Your task to perform on an android device: turn off smart reply in the gmail app Image 0: 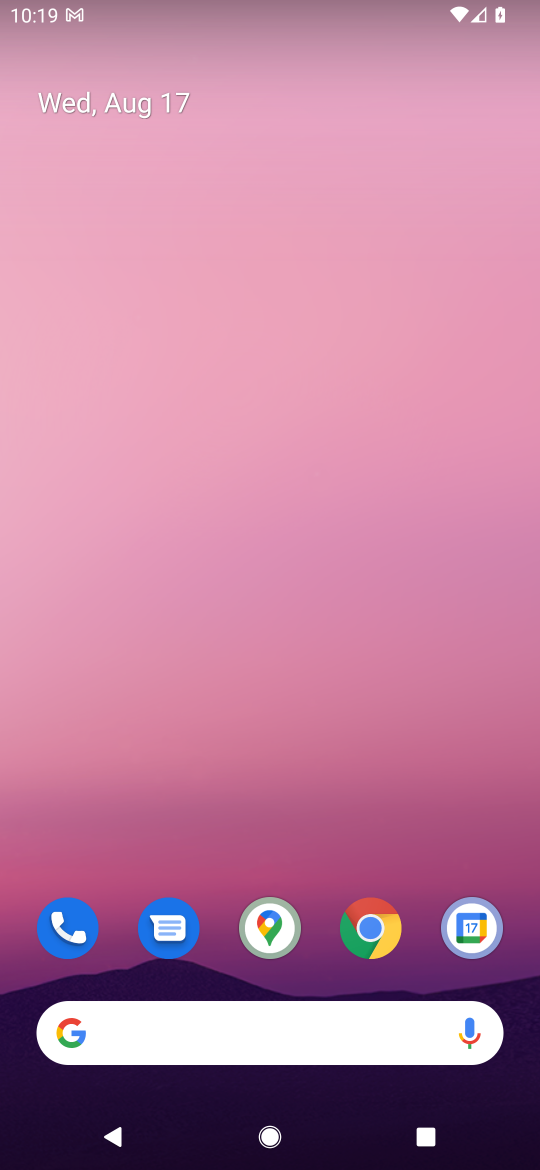
Step 0: drag from (331, 850) to (441, 714)
Your task to perform on an android device: turn off smart reply in the gmail app Image 1: 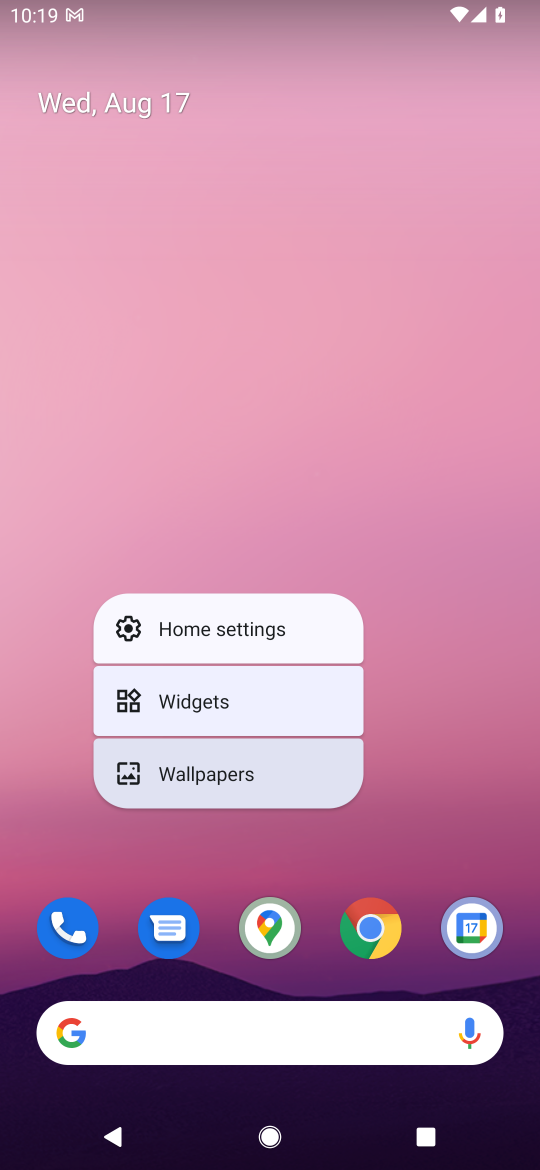
Step 1: drag from (435, 830) to (366, 84)
Your task to perform on an android device: turn off smart reply in the gmail app Image 2: 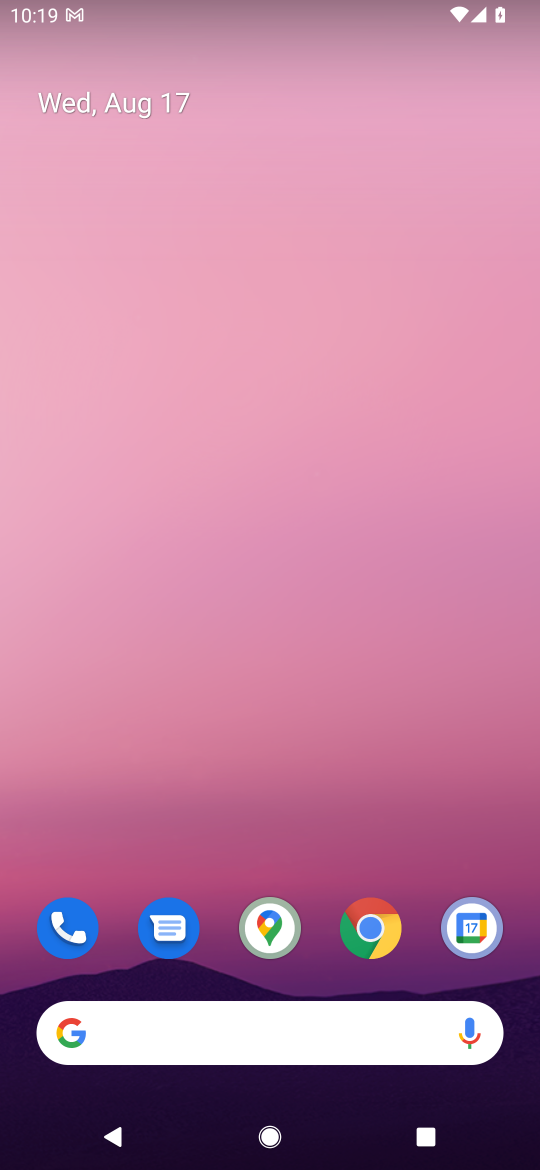
Step 2: drag from (416, 867) to (312, 263)
Your task to perform on an android device: turn off smart reply in the gmail app Image 3: 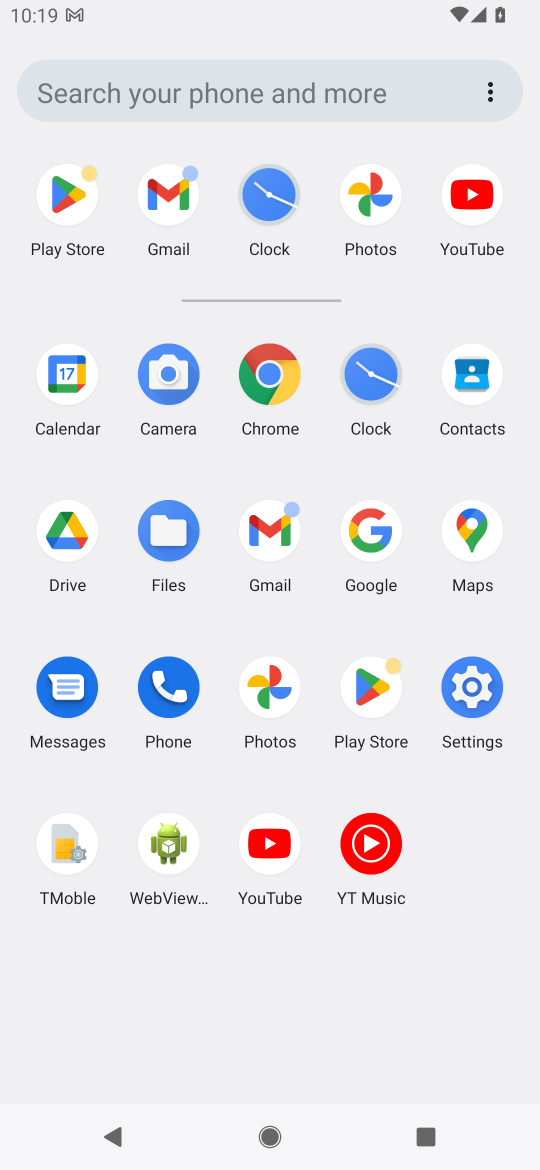
Step 3: click (272, 516)
Your task to perform on an android device: turn off smart reply in the gmail app Image 4: 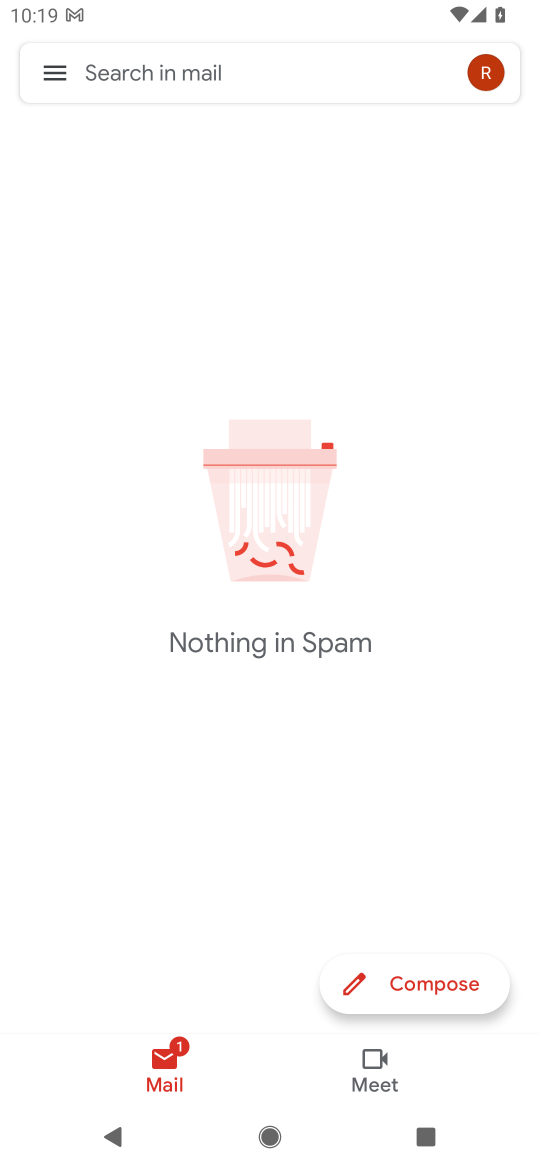
Step 4: click (49, 89)
Your task to perform on an android device: turn off smart reply in the gmail app Image 5: 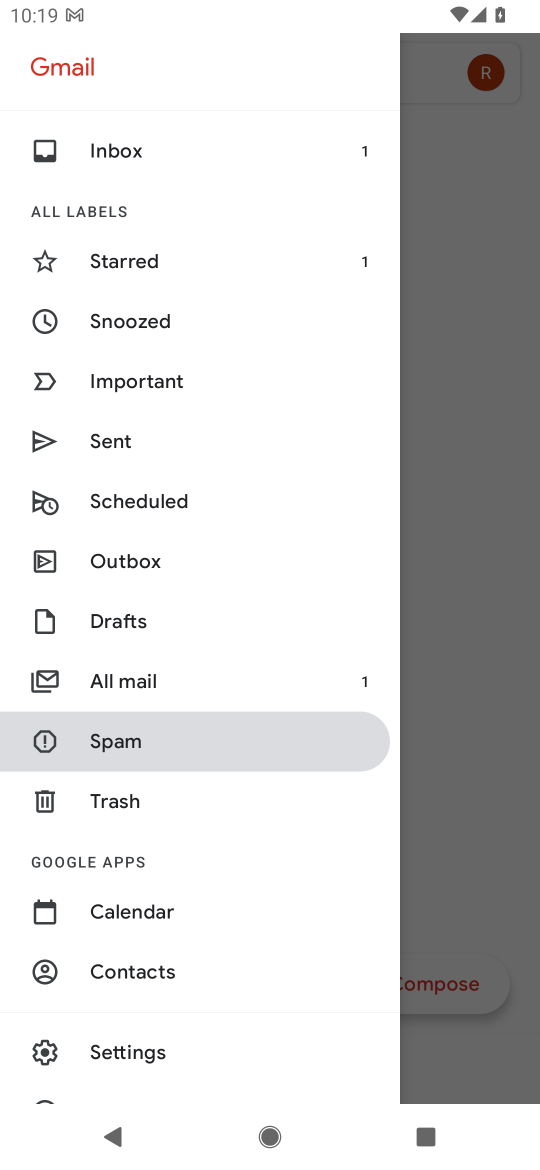
Step 5: click (185, 1047)
Your task to perform on an android device: turn off smart reply in the gmail app Image 6: 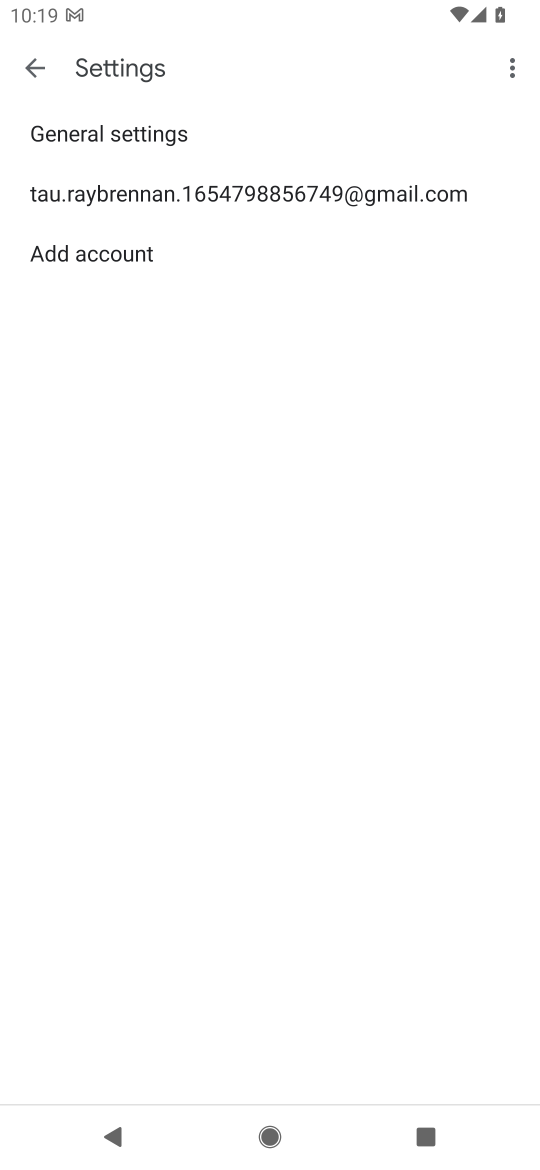
Step 6: click (174, 192)
Your task to perform on an android device: turn off smart reply in the gmail app Image 7: 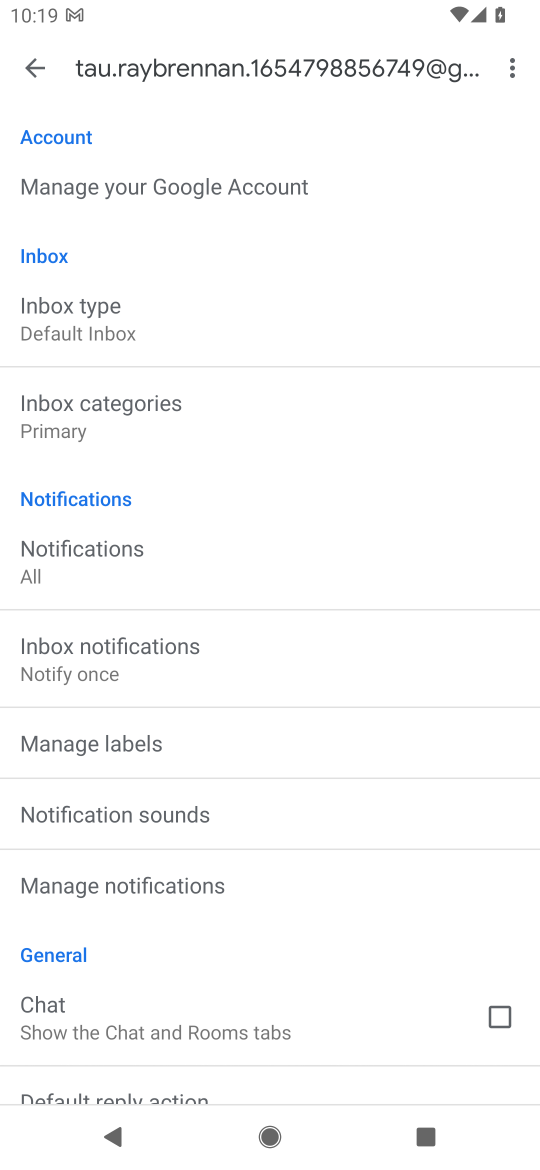
Step 7: drag from (248, 983) to (189, 548)
Your task to perform on an android device: turn off smart reply in the gmail app Image 8: 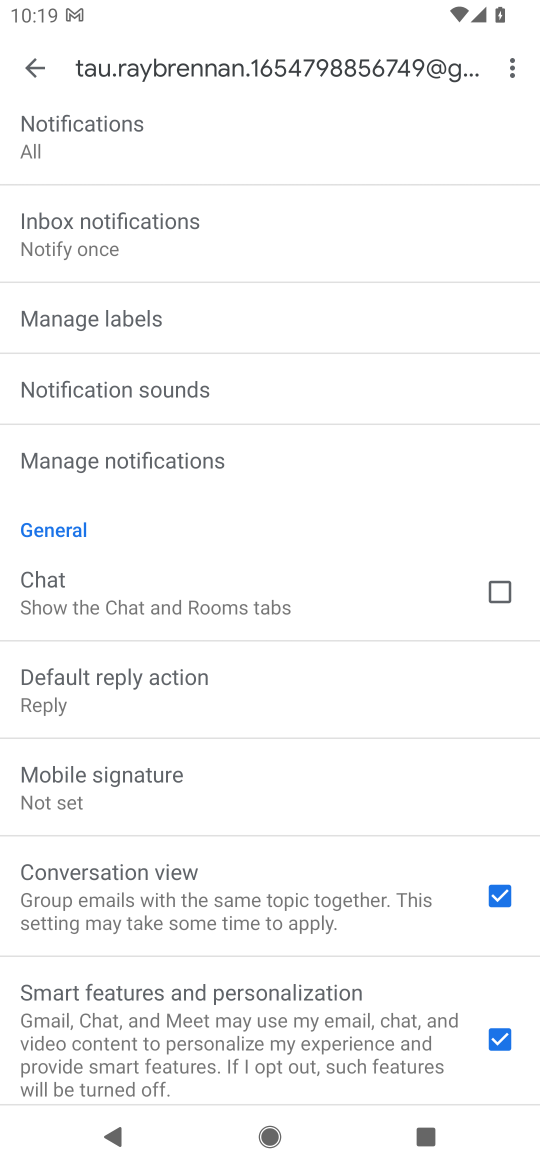
Step 8: drag from (275, 919) to (168, 389)
Your task to perform on an android device: turn off smart reply in the gmail app Image 9: 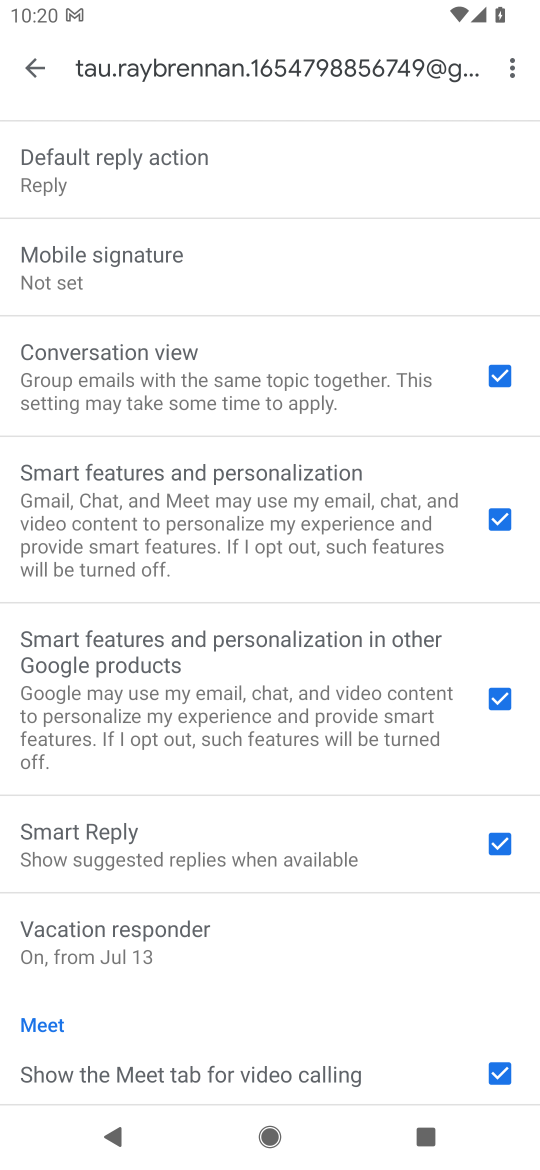
Step 9: click (506, 843)
Your task to perform on an android device: turn off smart reply in the gmail app Image 10: 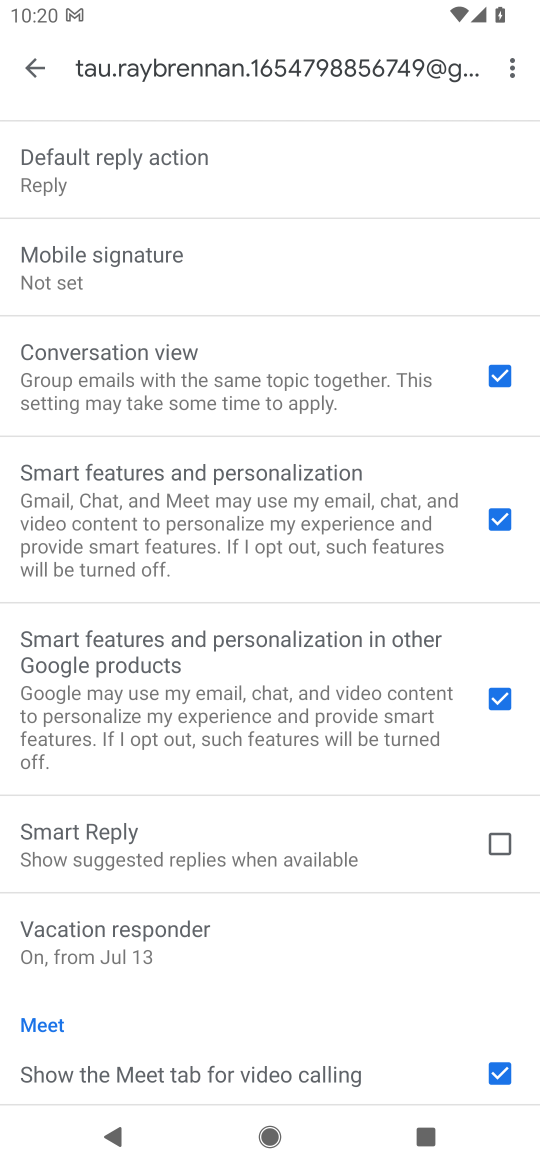
Step 10: task complete